Your task to perform on an android device: Empty the shopping cart on newegg. Image 0: 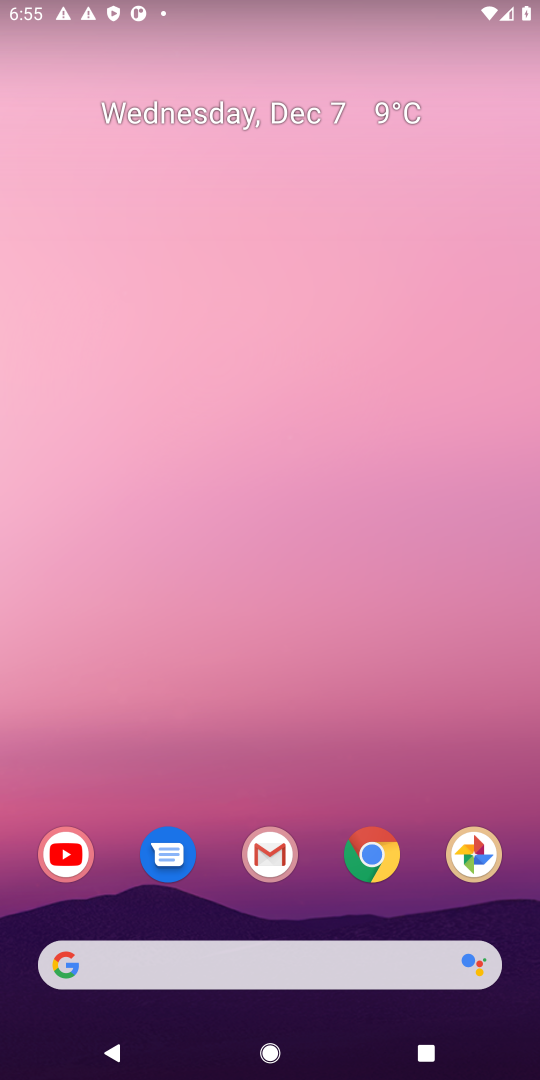
Step 0: click (241, 970)
Your task to perform on an android device: Empty the shopping cart on newegg. Image 1: 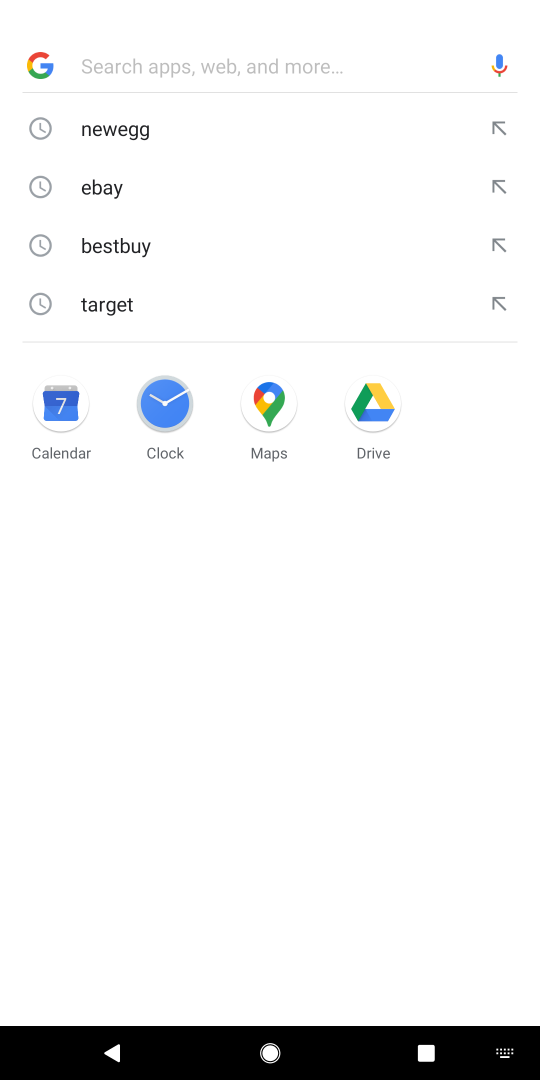
Step 1: click (218, 111)
Your task to perform on an android device: Empty the shopping cart on newegg. Image 2: 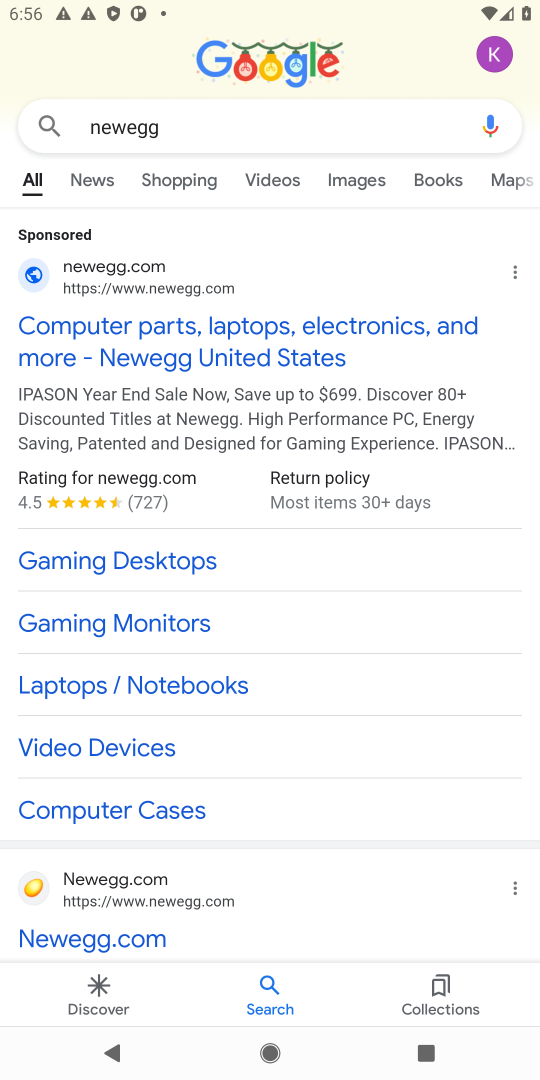
Step 2: click (72, 357)
Your task to perform on an android device: Empty the shopping cart on newegg. Image 3: 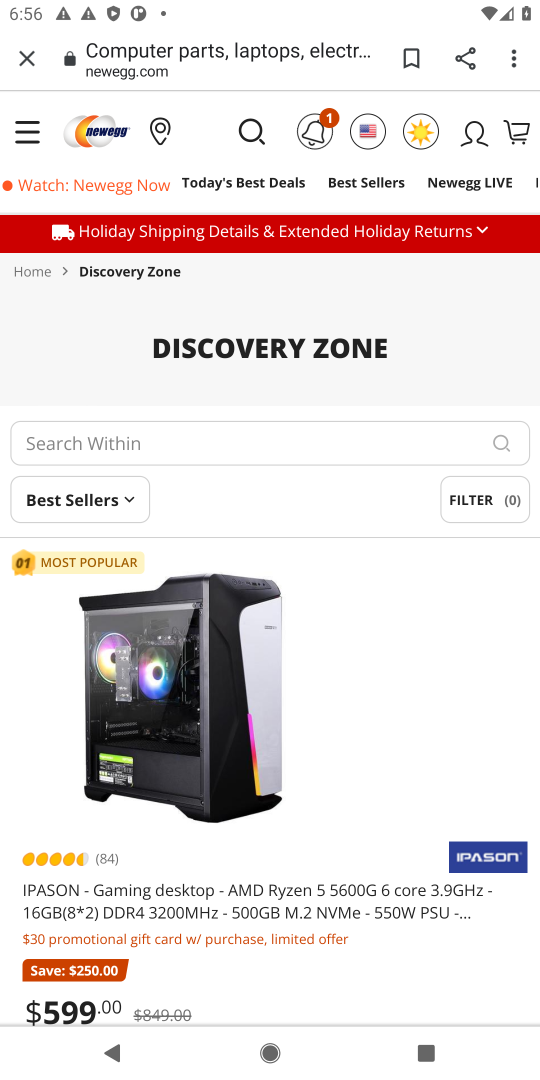
Step 3: click (230, 433)
Your task to perform on an android device: Empty the shopping cart on newegg. Image 4: 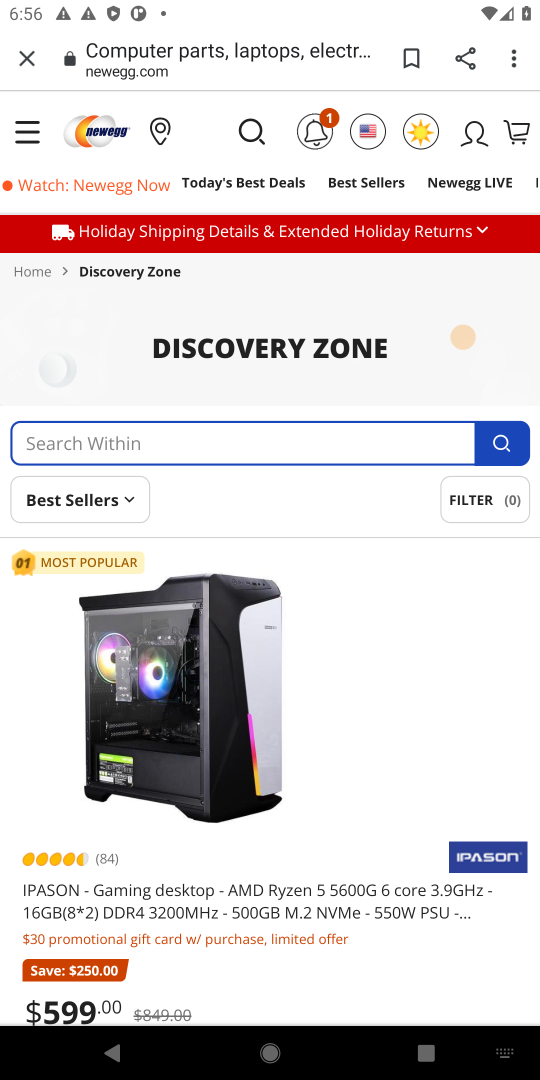
Step 4: click (518, 148)
Your task to perform on an android device: Empty the shopping cart on newegg. Image 5: 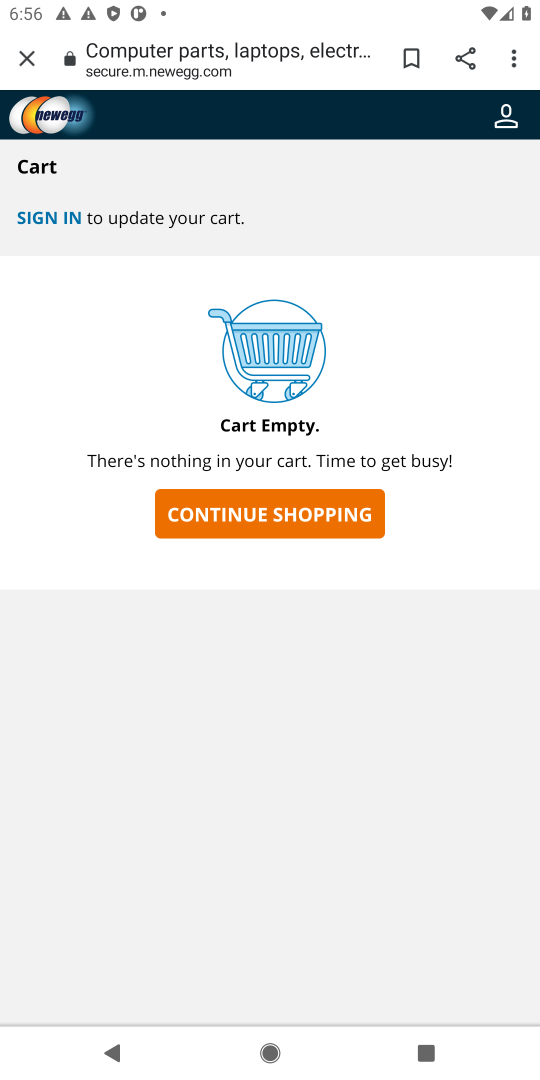
Step 5: task complete